Your task to perform on an android device: Open internet settings Image 0: 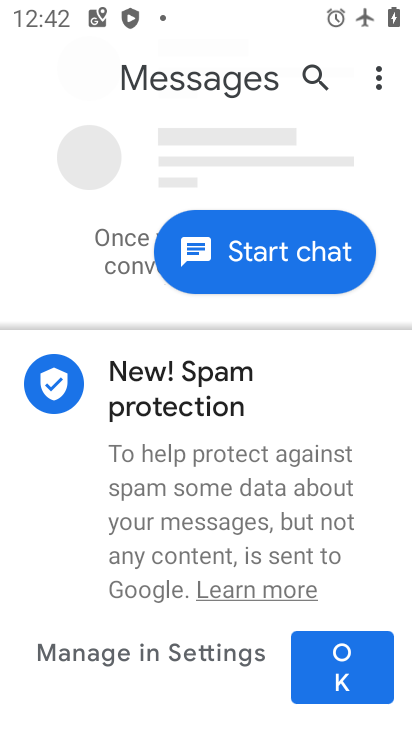
Step 0: press home button
Your task to perform on an android device: Open internet settings Image 1: 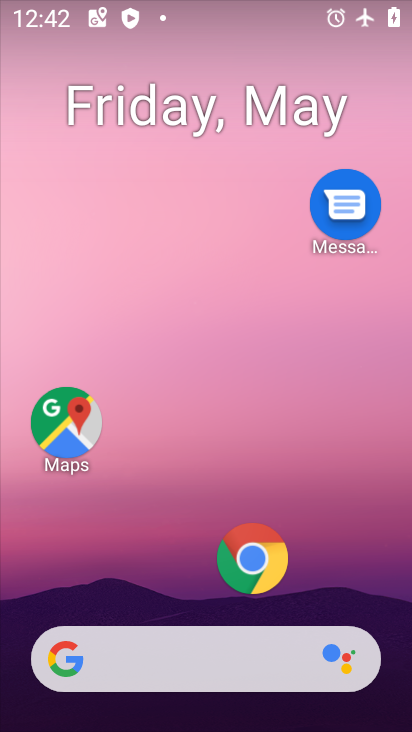
Step 1: drag from (261, 659) to (280, 173)
Your task to perform on an android device: Open internet settings Image 2: 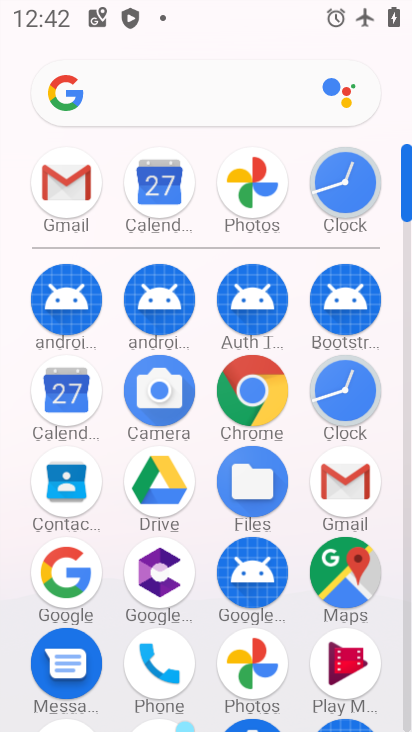
Step 2: drag from (176, 545) to (160, 120)
Your task to perform on an android device: Open internet settings Image 3: 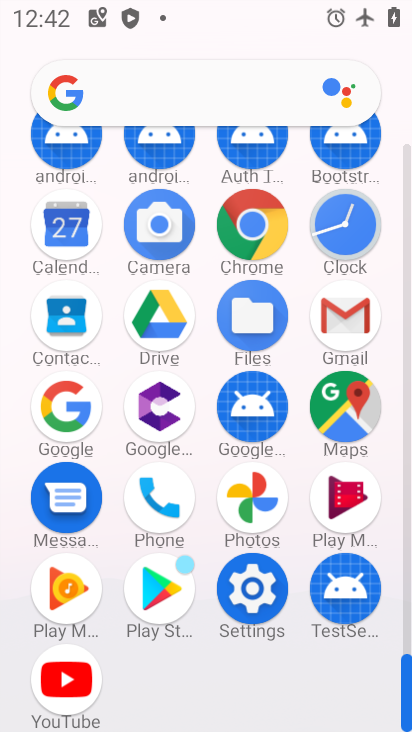
Step 3: click (237, 588)
Your task to perform on an android device: Open internet settings Image 4: 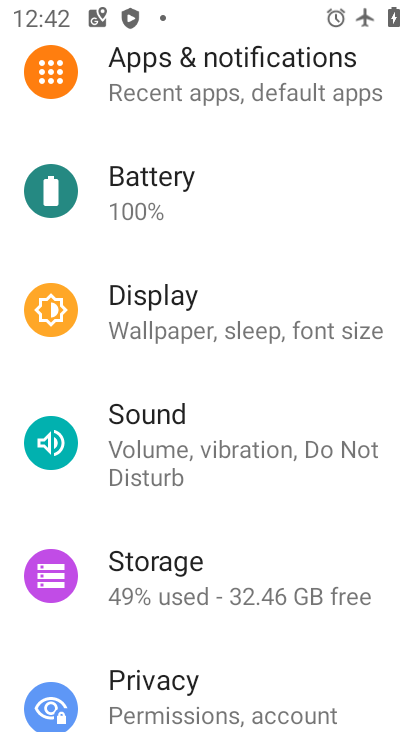
Step 4: drag from (179, 235) to (204, 607)
Your task to perform on an android device: Open internet settings Image 5: 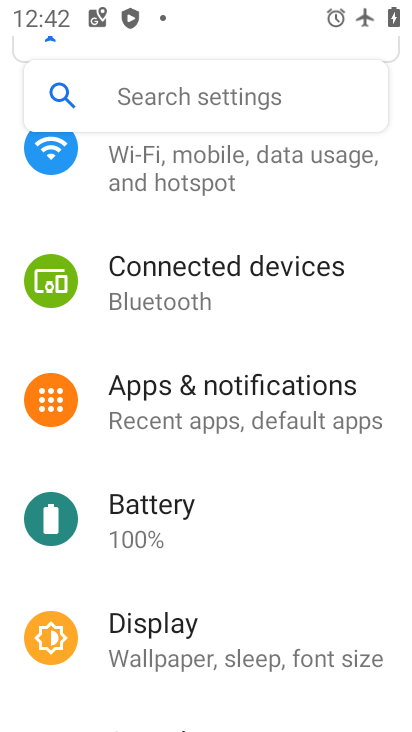
Step 5: drag from (207, 329) to (202, 626)
Your task to perform on an android device: Open internet settings Image 6: 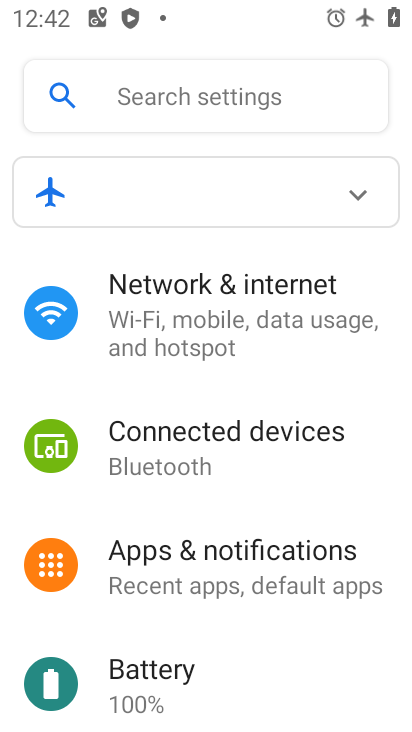
Step 6: click (198, 333)
Your task to perform on an android device: Open internet settings Image 7: 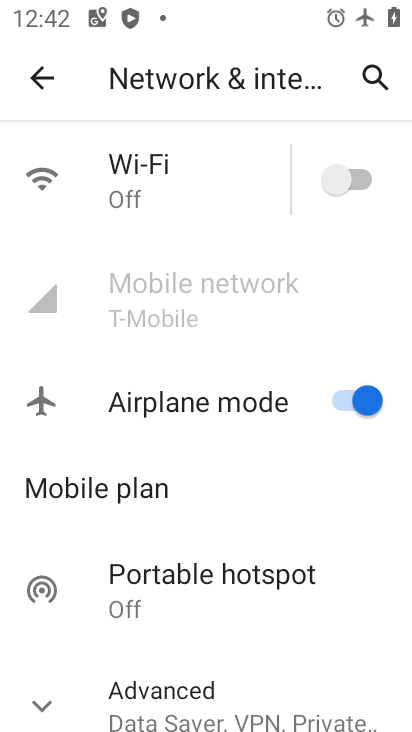
Step 7: click (196, 305)
Your task to perform on an android device: Open internet settings Image 8: 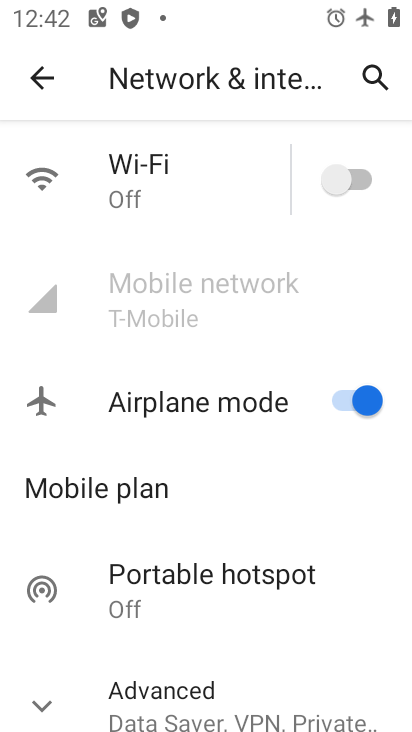
Step 8: task complete